Your task to perform on an android device: delete a single message in the gmail app Image 0: 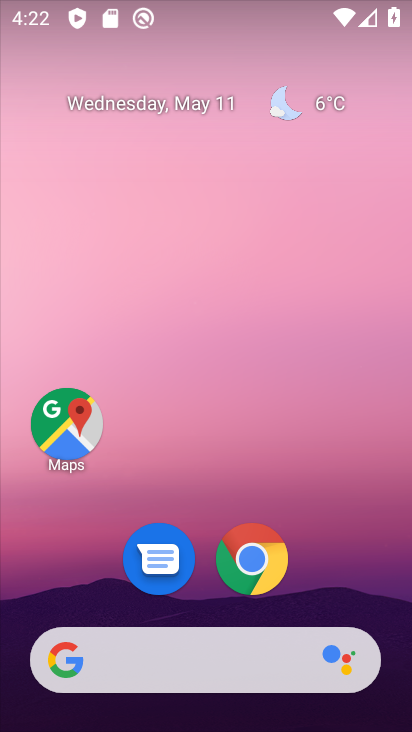
Step 0: drag from (323, 599) to (359, 111)
Your task to perform on an android device: delete a single message in the gmail app Image 1: 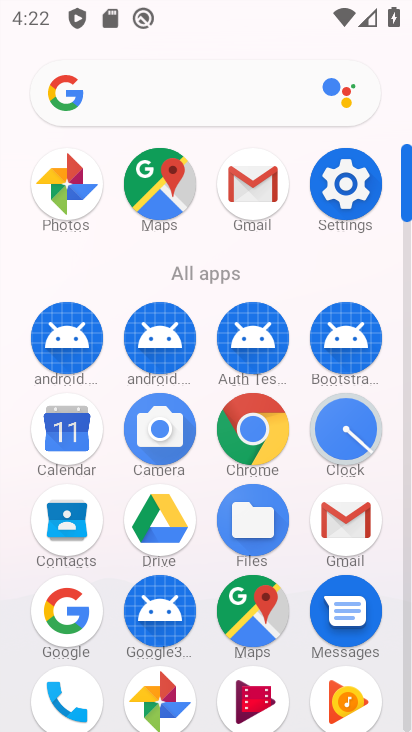
Step 1: click (283, 215)
Your task to perform on an android device: delete a single message in the gmail app Image 2: 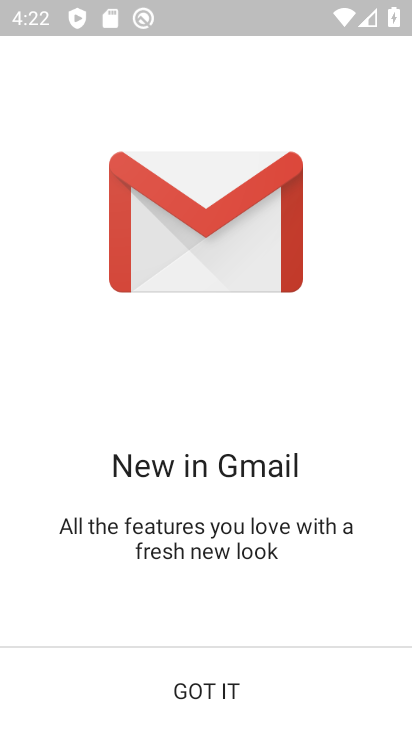
Step 2: click (208, 677)
Your task to perform on an android device: delete a single message in the gmail app Image 3: 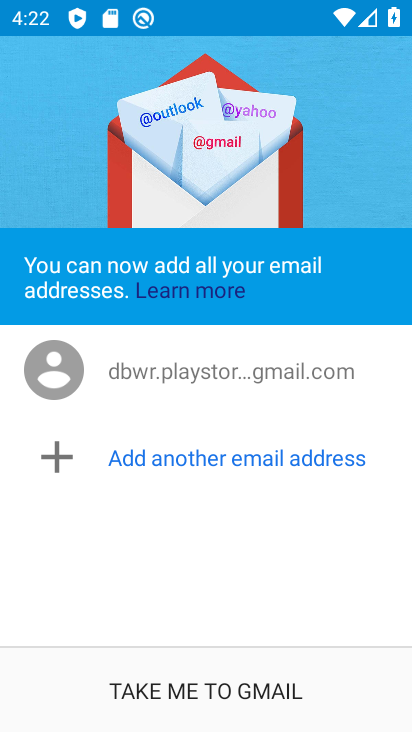
Step 3: click (208, 678)
Your task to perform on an android device: delete a single message in the gmail app Image 4: 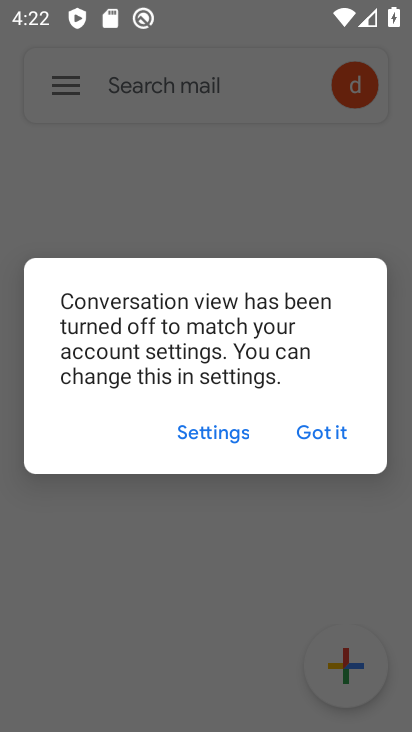
Step 4: click (311, 441)
Your task to perform on an android device: delete a single message in the gmail app Image 5: 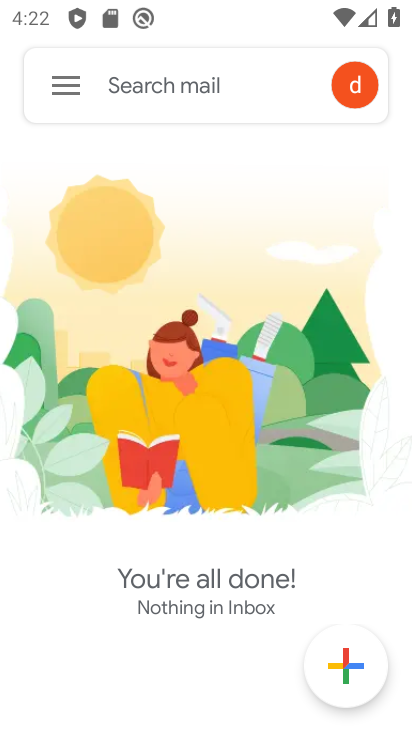
Step 5: click (73, 96)
Your task to perform on an android device: delete a single message in the gmail app Image 6: 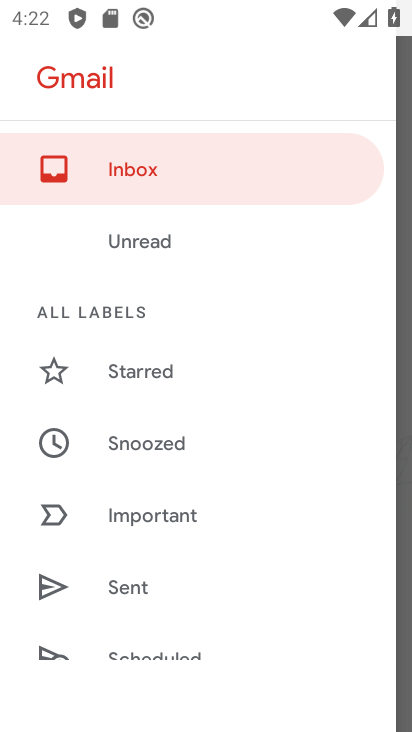
Step 6: drag from (165, 588) to (209, 256)
Your task to perform on an android device: delete a single message in the gmail app Image 7: 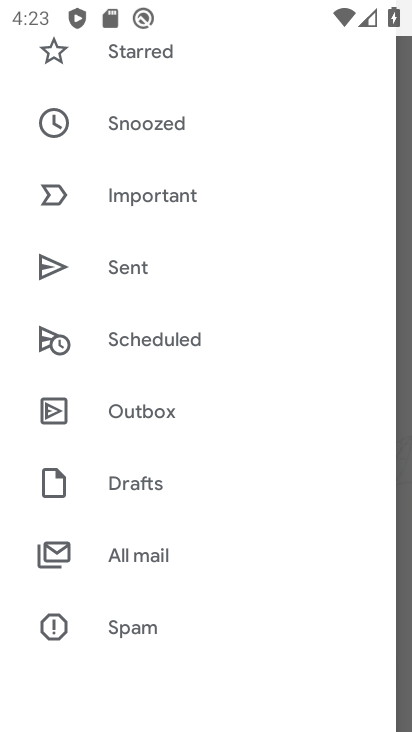
Step 7: click (132, 563)
Your task to perform on an android device: delete a single message in the gmail app Image 8: 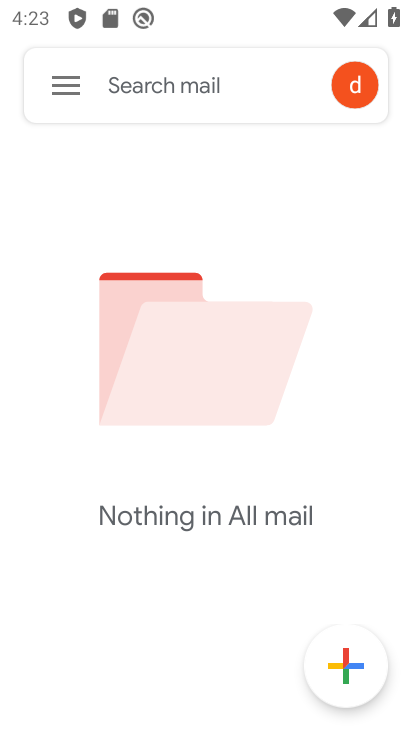
Step 8: task complete